Your task to perform on an android device: Is it going to rain today? Image 0: 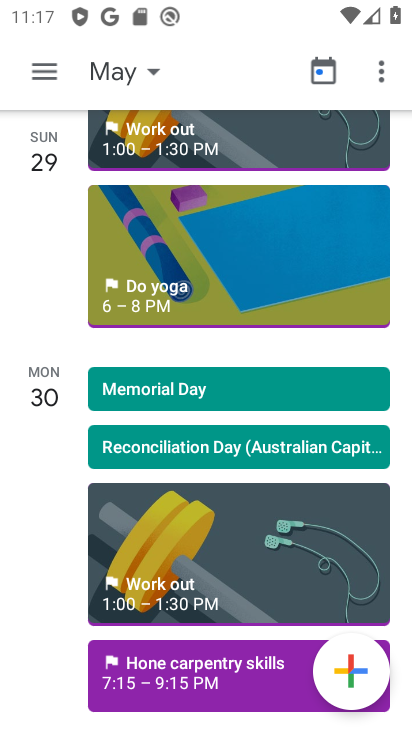
Step 0: press home button
Your task to perform on an android device: Is it going to rain today? Image 1: 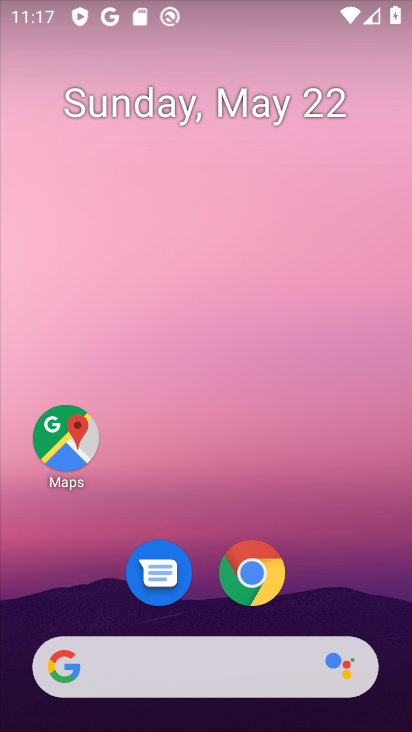
Step 1: click (77, 673)
Your task to perform on an android device: Is it going to rain today? Image 2: 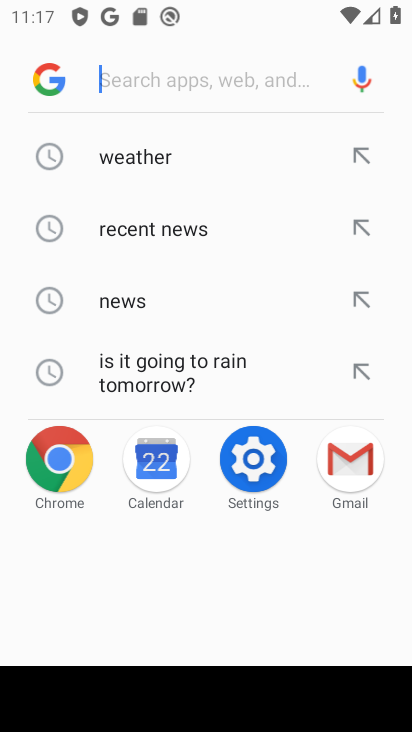
Step 2: click (140, 159)
Your task to perform on an android device: Is it going to rain today? Image 3: 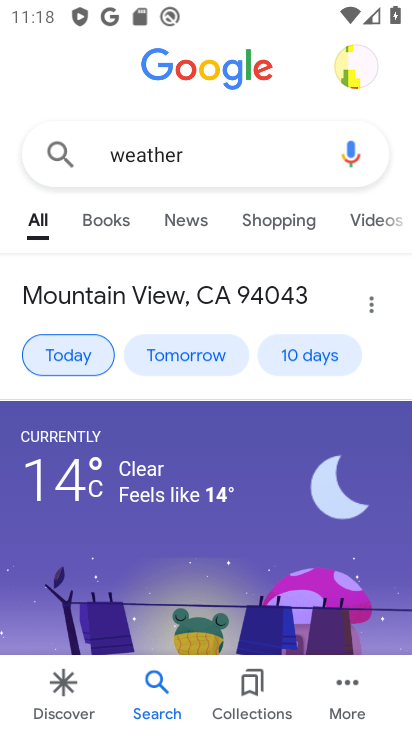
Step 3: task complete